Your task to perform on an android device: toggle location history Image 0: 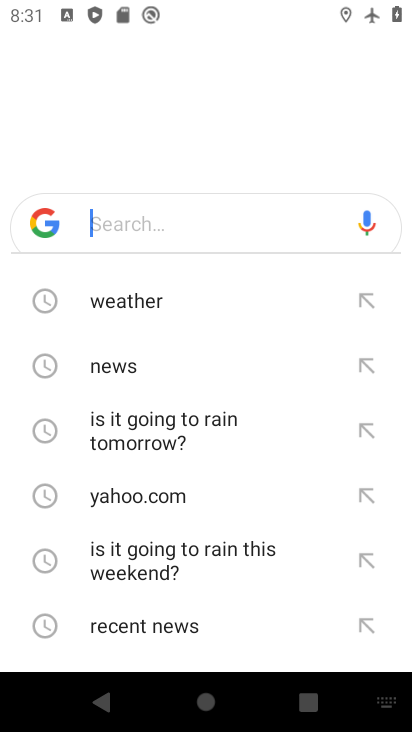
Step 0: press home button
Your task to perform on an android device: toggle location history Image 1: 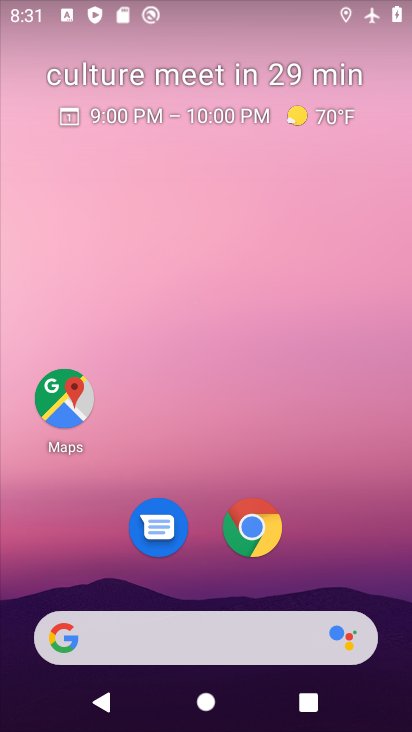
Step 1: drag from (229, 623) to (265, 197)
Your task to perform on an android device: toggle location history Image 2: 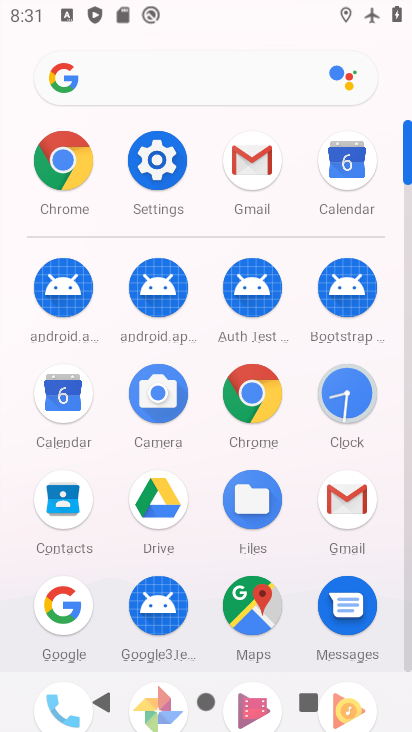
Step 2: click (170, 181)
Your task to perform on an android device: toggle location history Image 3: 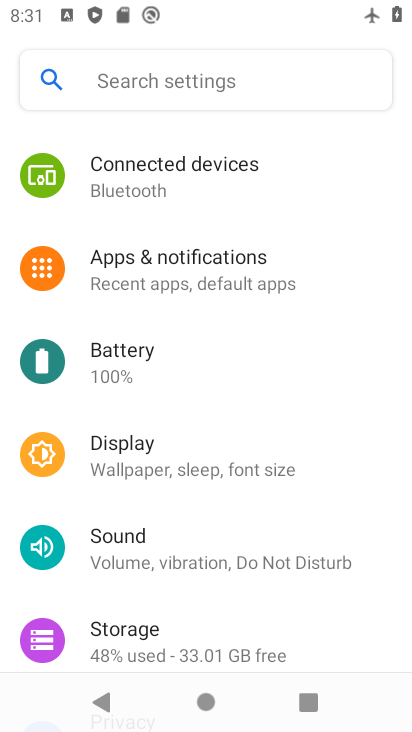
Step 3: drag from (220, 453) to (255, 222)
Your task to perform on an android device: toggle location history Image 4: 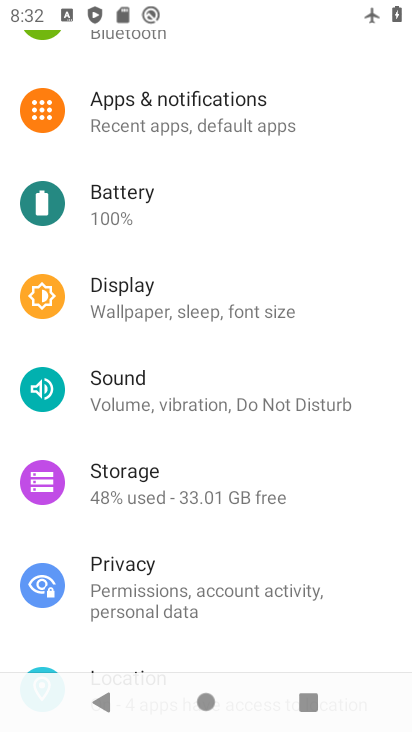
Step 4: drag from (171, 448) to (168, 326)
Your task to perform on an android device: toggle location history Image 5: 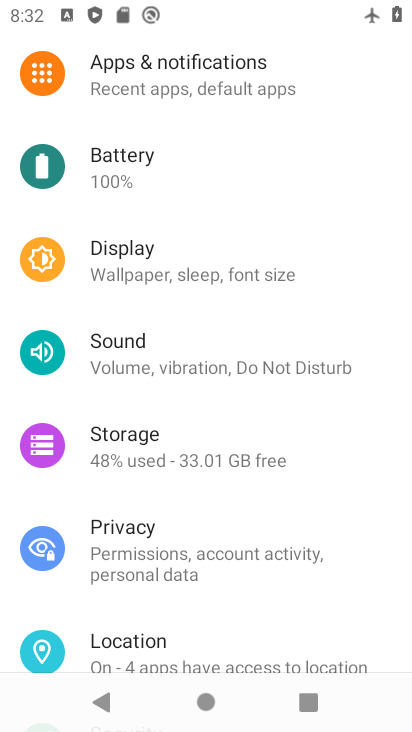
Step 5: drag from (196, 576) to (199, 391)
Your task to perform on an android device: toggle location history Image 6: 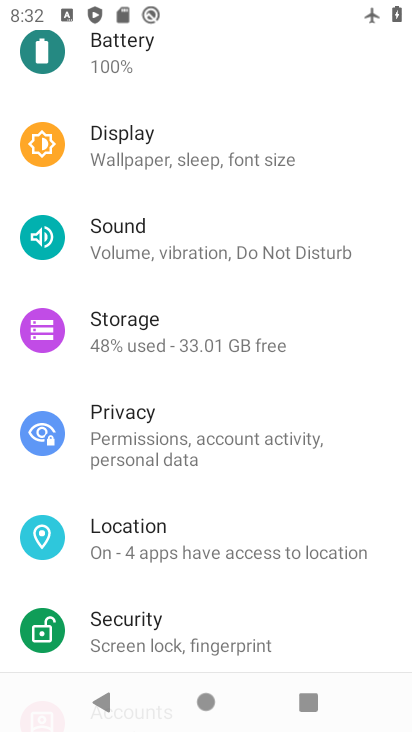
Step 6: click (238, 542)
Your task to perform on an android device: toggle location history Image 7: 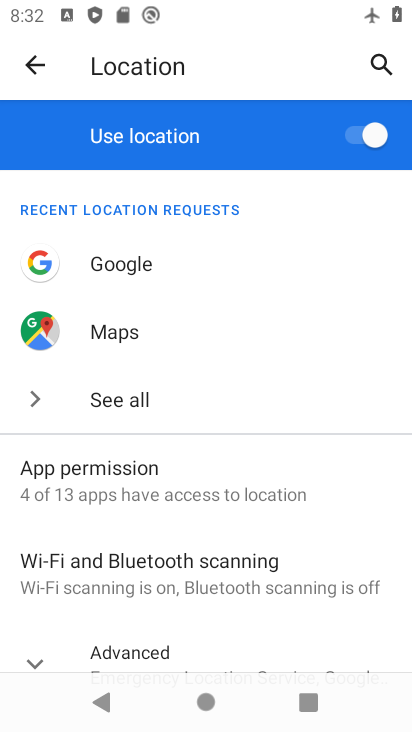
Step 7: drag from (216, 479) to (238, 344)
Your task to perform on an android device: toggle location history Image 8: 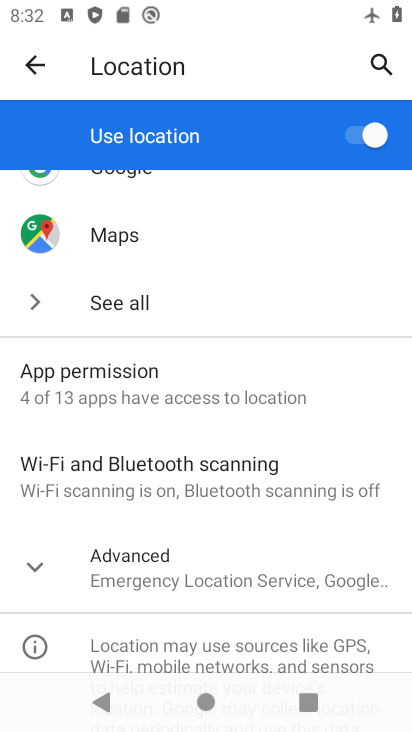
Step 8: click (236, 578)
Your task to perform on an android device: toggle location history Image 9: 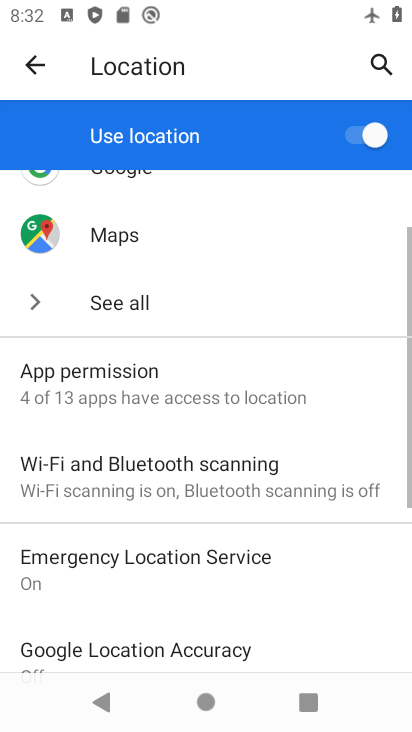
Step 9: drag from (236, 578) to (244, 427)
Your task to perform on an android device: toggle location history Image 10: 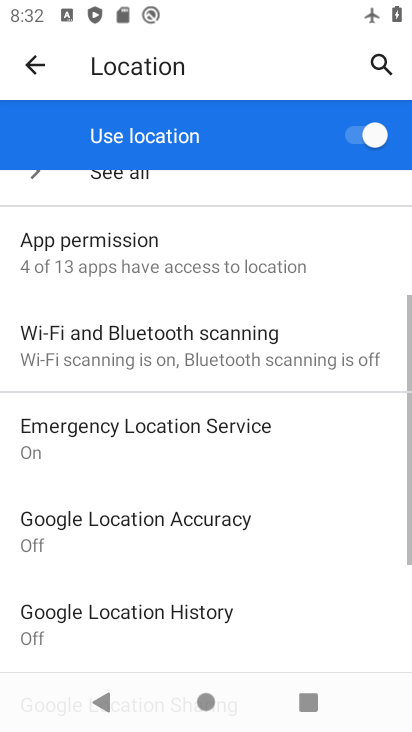
Step 10: click (272, 292)
Your task to perform on an android device: toggle location history Image 11: 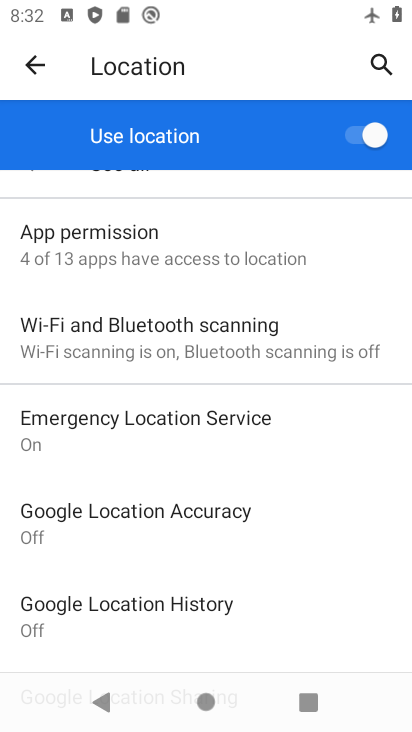
Step 11: click (231, 603)
Your task to perform on an android device: toggle location history Image 12: 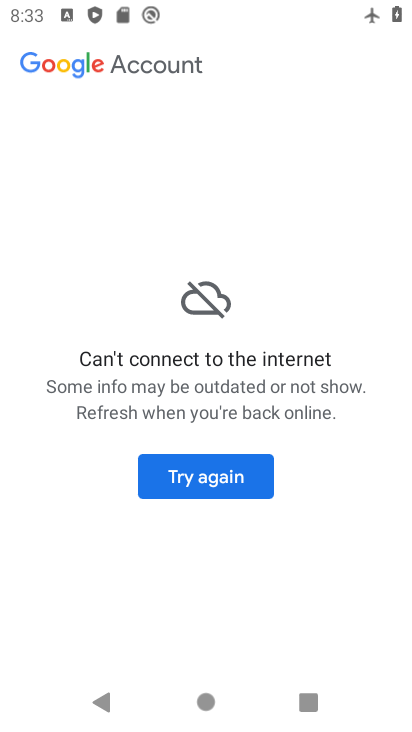
Step 12: click (186, 479)
Your task to perform on an android device: toggle location history Image 13: 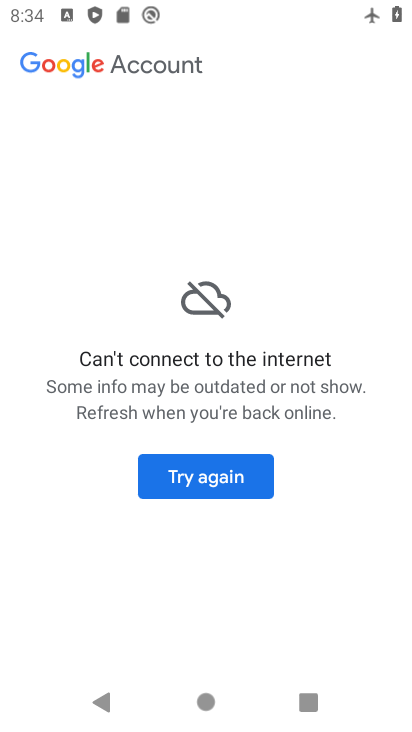
Step 13: task complete